Your task to perform on an android device: change text size in settings app Image 0: 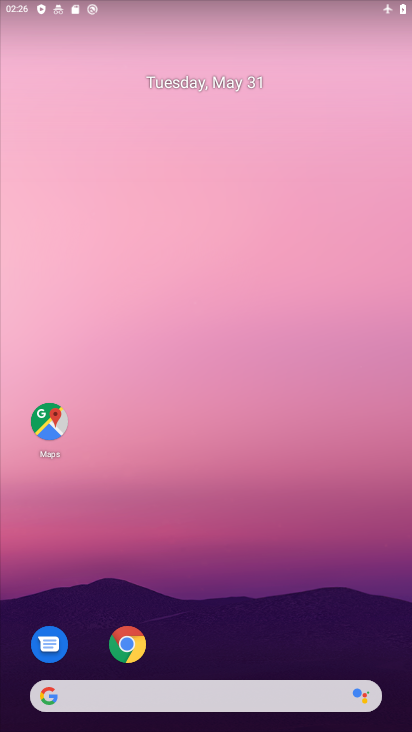
Step 0: drag from (280, 634) to (244, 154)
Your task to perform on an android device: change text size in settings app Image 1: 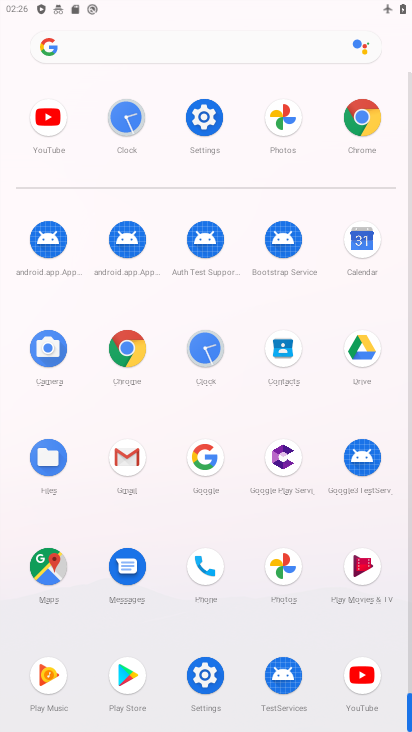
Step 1: click (200, 115)
Your task to perform on an android device: change text size in settings app Image 2: 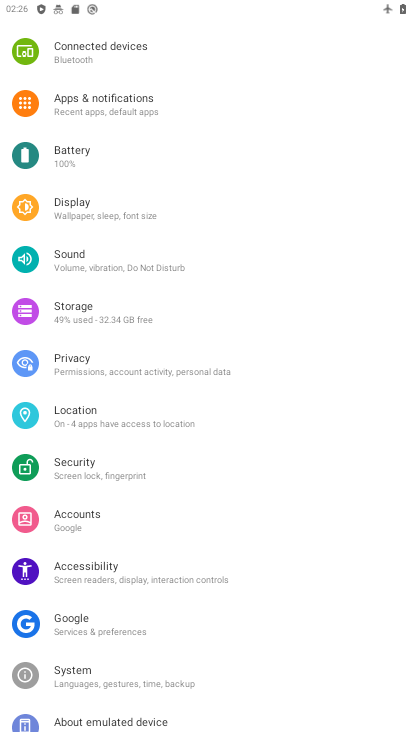
Step 2: click (123, 213)
Your task to perform on an android device: change text size in settings app Image 3: 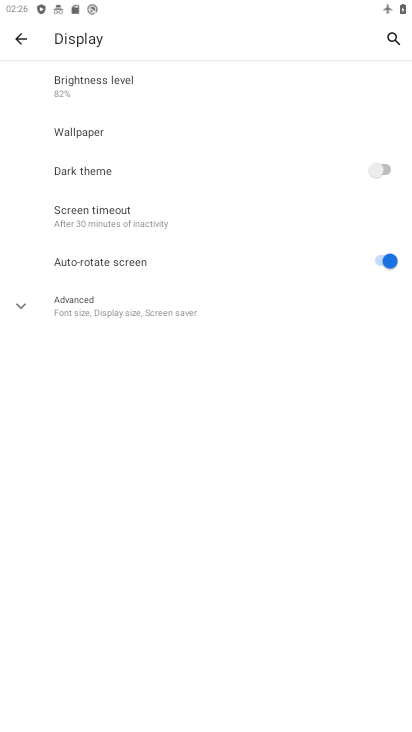
Step 3: click (106, 299)
Your task to perform on an android device: change text size in settings app Image 4: 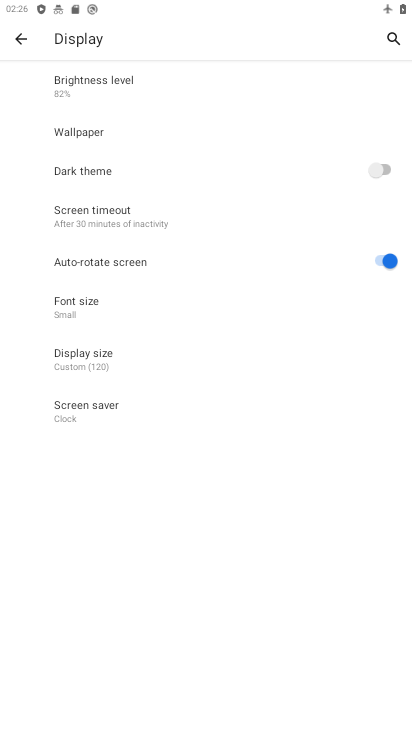
Step 4: click (83, 311)
Your task to perform on an android device: change text size in settings app Image 5: 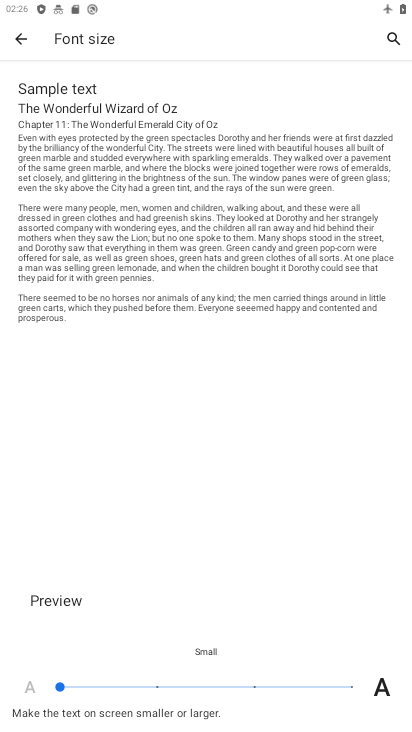
Step 5: click (118, 690)
Your task to perform on an android device: change text size in settings app Image 6: 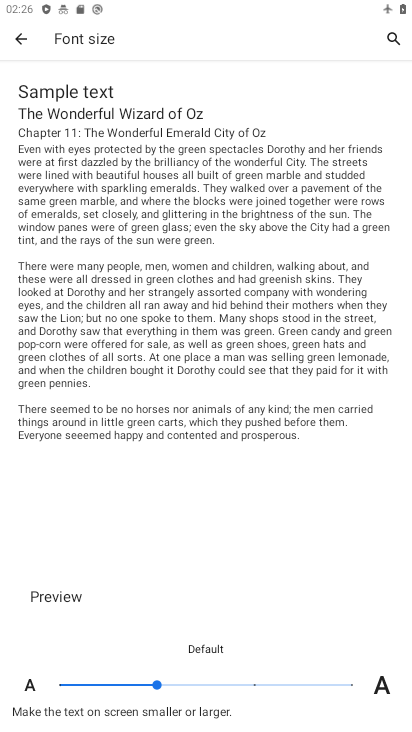
Step 6: task complete